Your task to perform on an android device: turn off picture-in-picture Image 0: 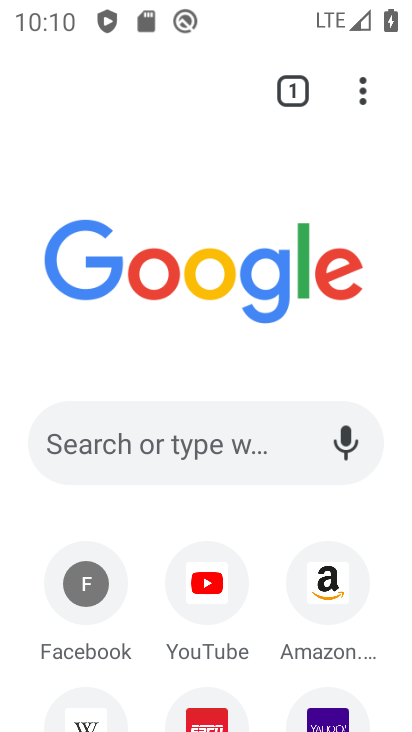
Step 0: press home button
Your task to perform on an android device: turn off picture-in-picture Image 1: 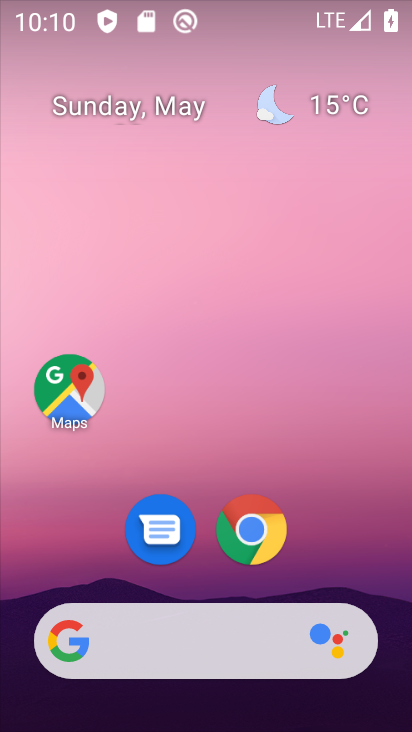
Step 1: drag from (280, 555) to (329, 70)
Your task to perform on an android device: turn off picture-in-picture Image 2: 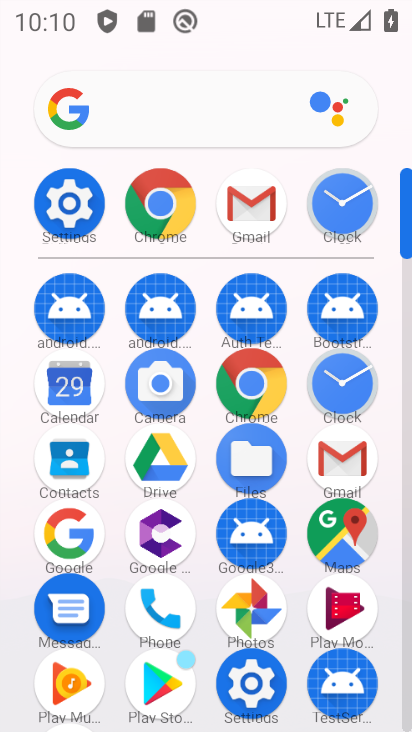
Step 2: click (94, 198)
Your task to perform on an android device: turn off picture-in-picture Image 3: 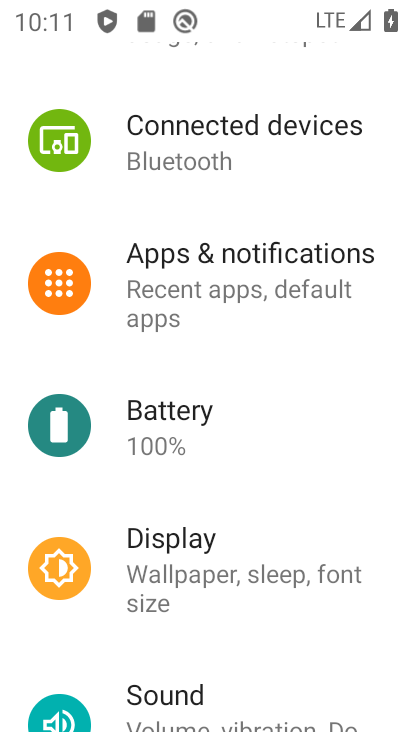
Step 3: click (214, 263)
Your task to perform on an android device: turn off picture-in-picture Image 4: 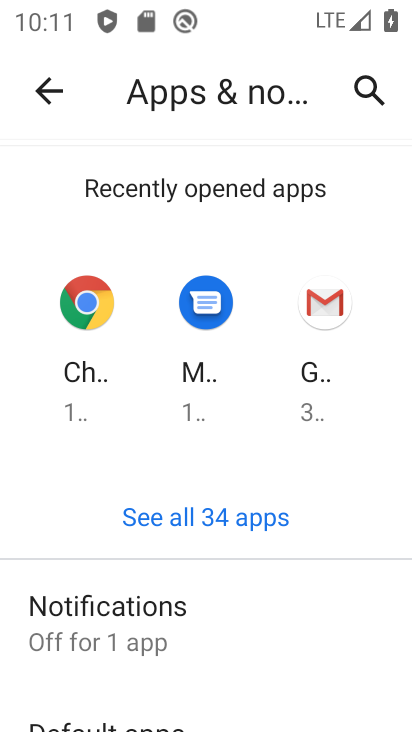
Step 4: drag from (213, 657) to (284, 77)
Your task to perform on an android device: turn off picture-in-picture Image 5: 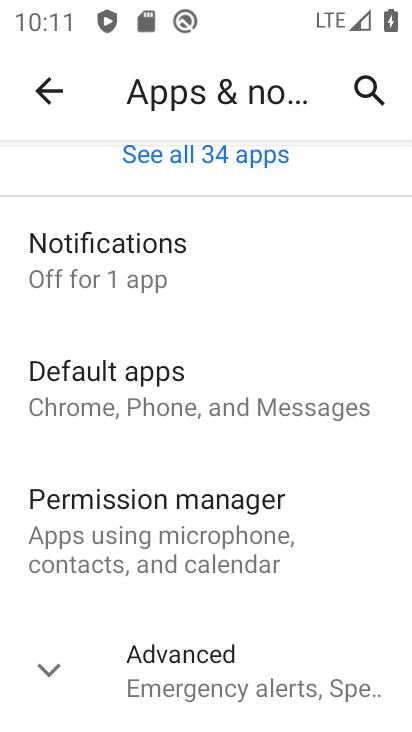
Step 5: click (172, 666)
Your task to perform on an android device: turn off picture-in-picture Image 6: 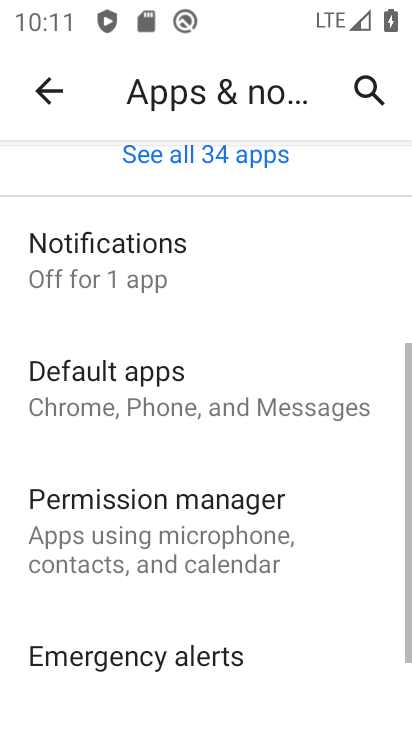
Step 6: drag from (202, 620) to (283, 108)
Your task to perform on an android device: turn off picture-in-picture Image 7: 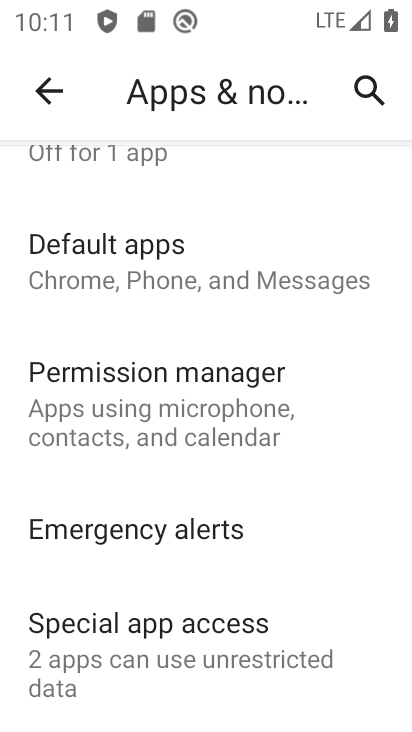
Step 7: click (173, 631)
Your task to perform on an android device: turn off picture-in-picture Image 8: 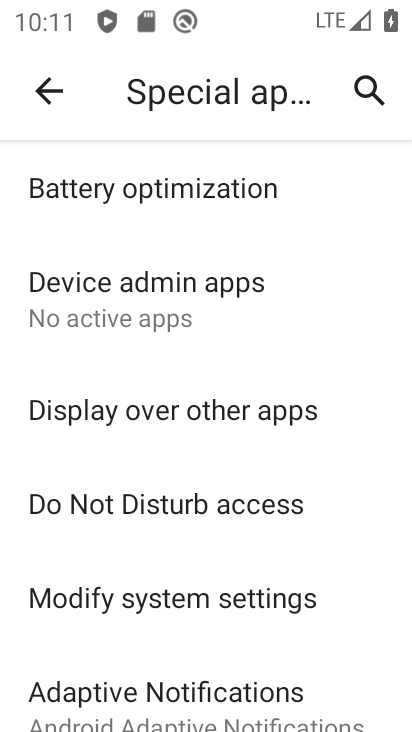
Step 8: task complete